Your task to perform on an android device: move an email to a new category in the gmail app Image 0: 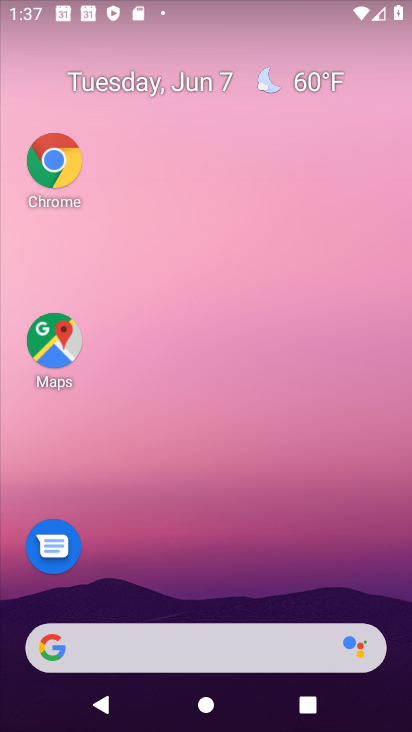
Step 0: drag from (174, 541) to (22, 1)
Your task to perform on an android device: move an email to a new category in the gmail app Image 1: 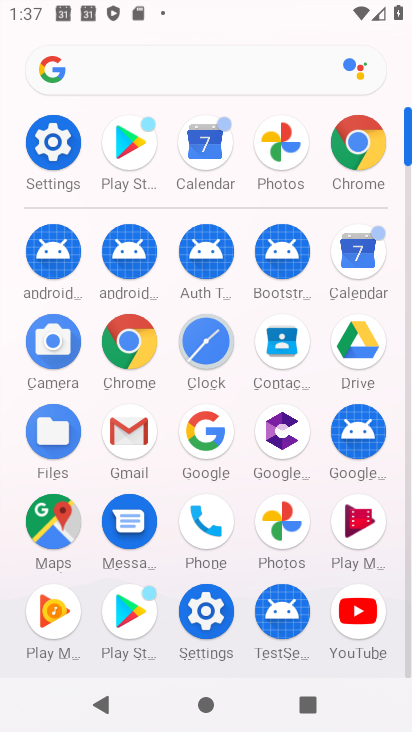
Step 1: click (122, 401)
Your task to perform on an android device: move an email to a new category in the gmail app Image 2: 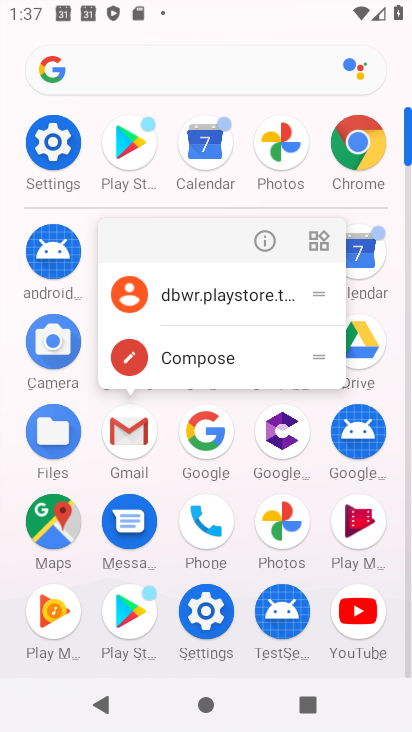
Step 2: click (264, 245)
Your task to perform on an android device: move an email to a new category in the gmail app Image 3: 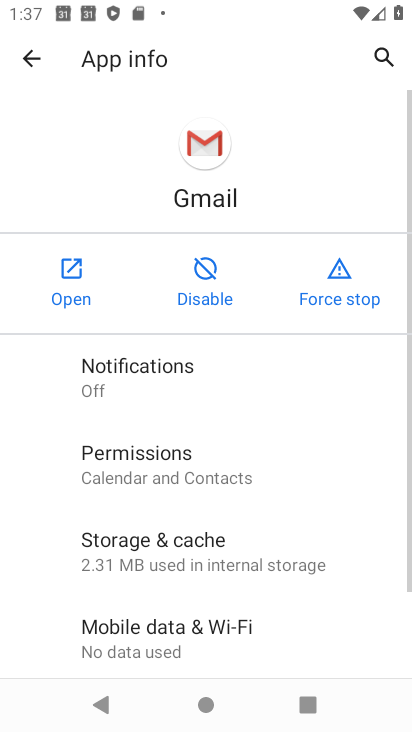
Step 3: click (54, 264)
Your task to perform on an android device: move an email to a new category in the gmail app Image 4: 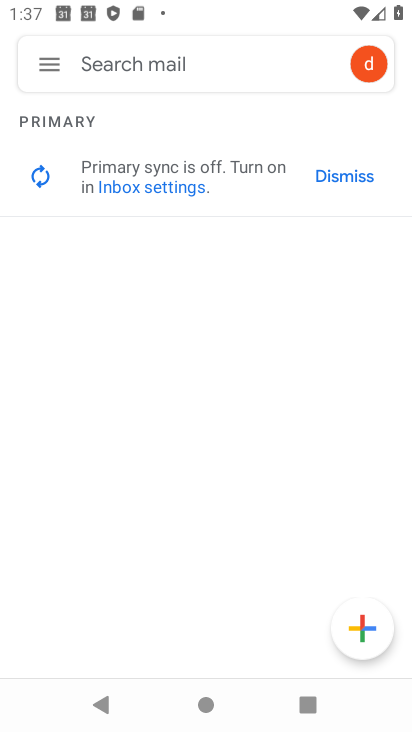
Step 4: task complete